Your task to perform on an android device: Open the map Image 0: 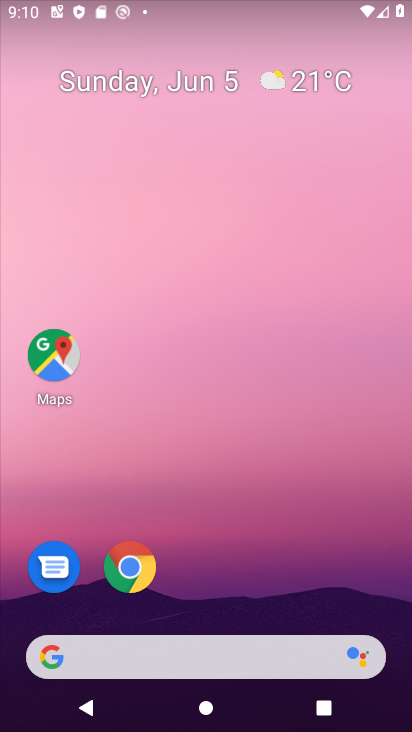
Step 0: click (57, 356)
Your task to perform on an android device: Open the map Image 1: 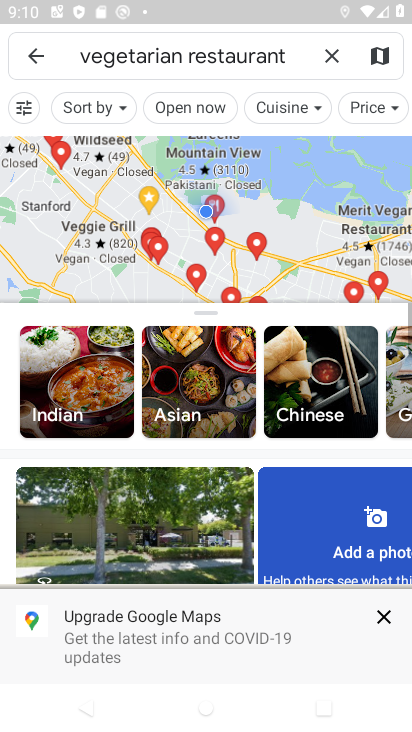
Step 1: click (335, 66)
Your task to perform on an android device: Open the map Image 2: 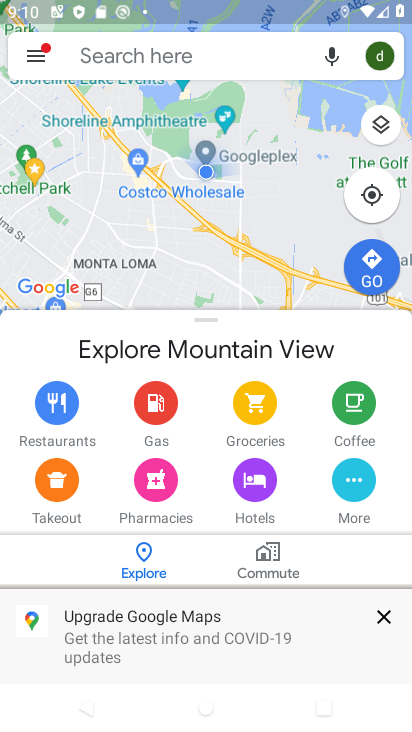
Step 2: task complete